Your task to perform on an android device: set the timer Image 0: 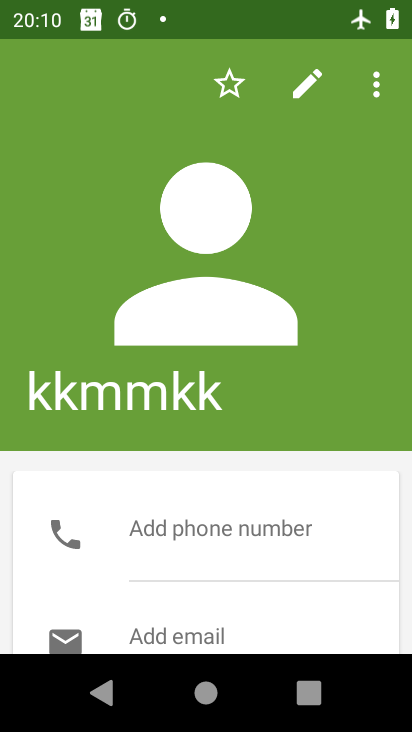
Step 0: press home button
Your task to perform on an android device: set the timer Image 1: 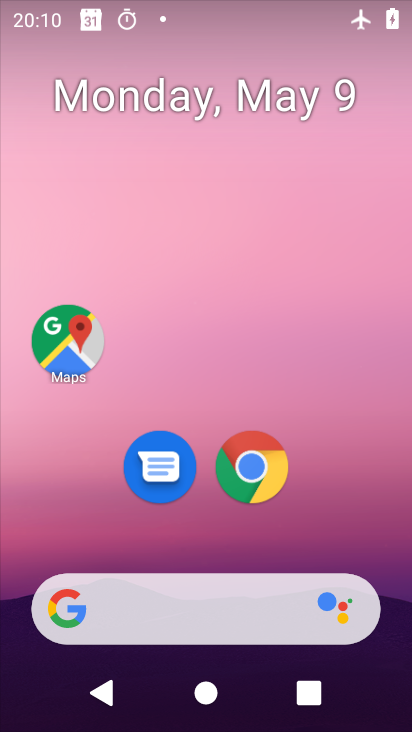
Step 1: drag from (362, 520) to (221, 19)
Your task to perform on an android device: set the timer Image 2: 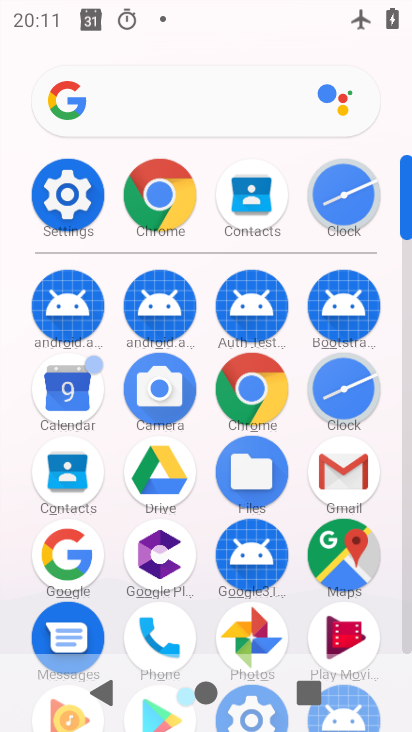
Step 2: click (348, 379)
Your task to perform on an android device: set the timer Image 3: 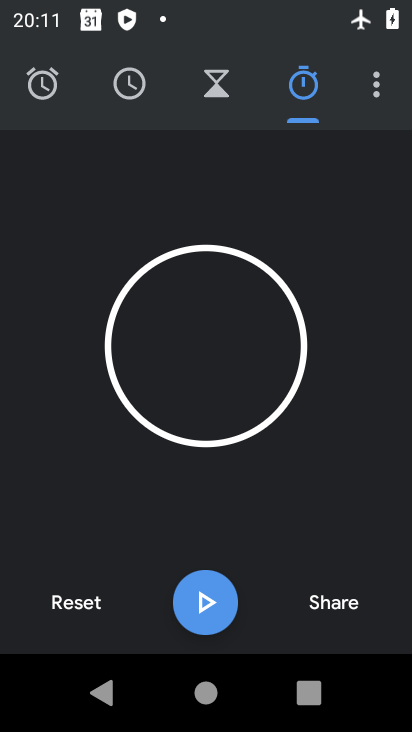
Step 3: click (223, 96)
Your task to perform on an android device: set the timer Image 4: 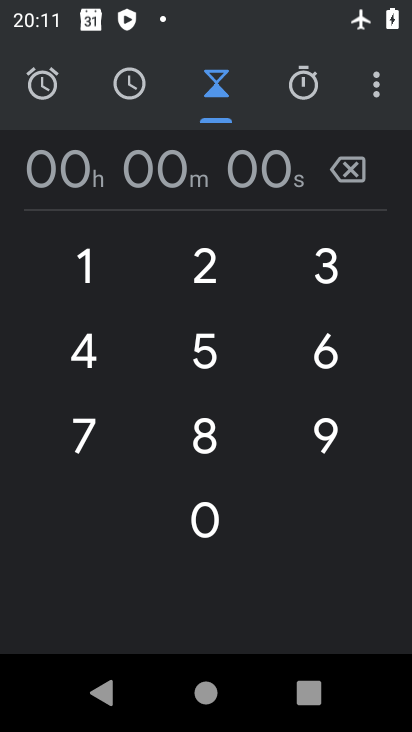
Step 4: click (219, 327)
Your task to perform on an android device: set the timer Image 5: 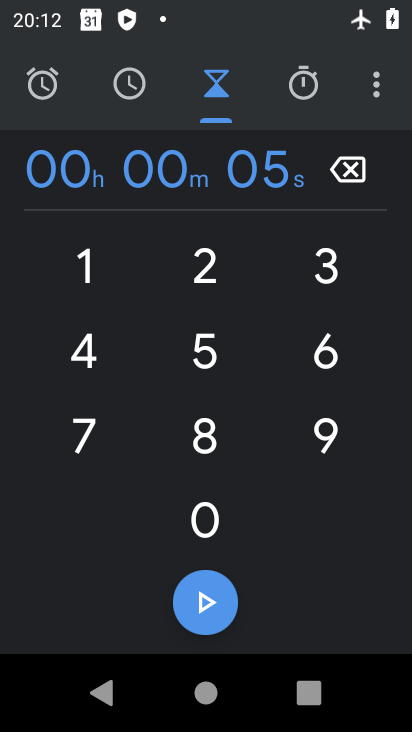
Step 5: task complete